Your task to perform on an android device: Search for usb-a on ebay, select the first entry, and add it to the cart. Image 0: 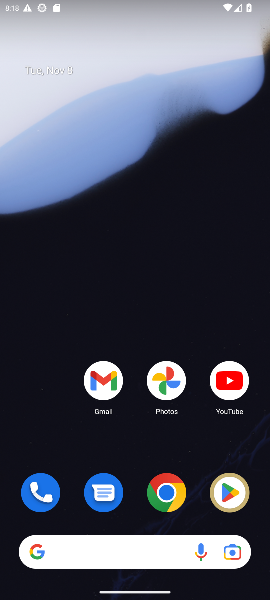
Step 0: click (163, 491)
Your task to perform on an android device: Search for usb-a on ebay, select the first entry, and add it to the cart. Image 1: 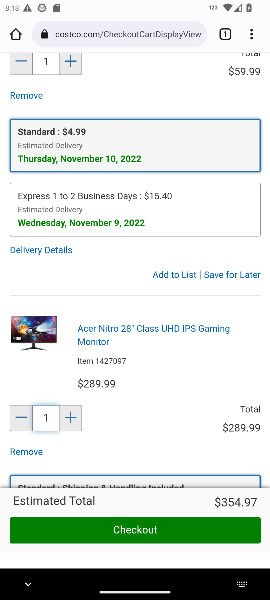
Step 1: click (130, 36)
Your task to perform on an android device: Search for usb-a on ebay, select the first entry, and add it to the cart. Image 2: 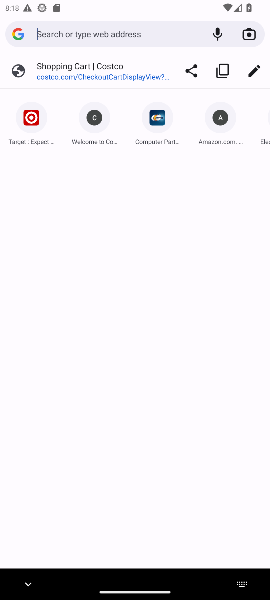
Step 2: type "ebay"
Your task to perform on an android device: Search for usb-a on ebay, select the first entry, and add it to the cart. Image 3: 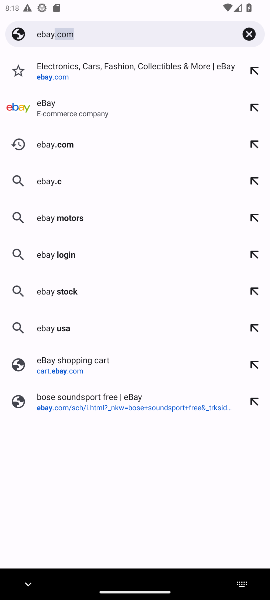
Step 3: press enter
Your task to perform on an android device: Search for usb-a on ebay, select the first entry, and add it to the cart. Image 4: 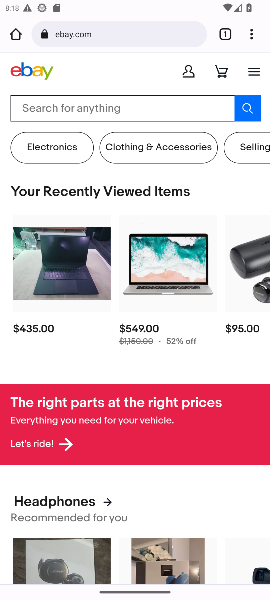
Step 4: click (61, 108)
Your task to perform on an android device: Search for usb-a on ebay, select the first entry, and add it to the cart. Image 5: 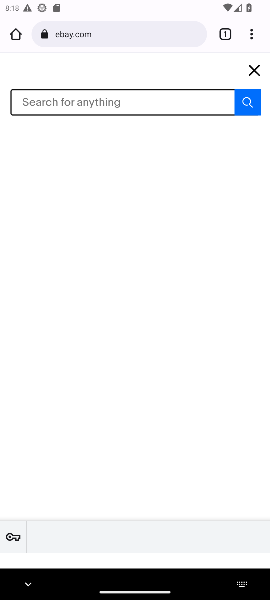
Step 5: type "usb-a on ebay"
Your task to perform on an android device: Search for usb-a on ebay, select the first entry, and add it to the cart. Image 6: 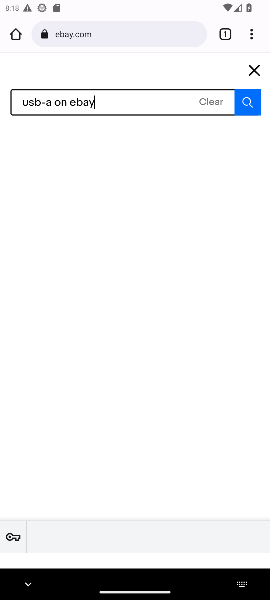
Step 6: press enter
Your task to perform on an android device: Search for usb-a on ebay, select the first entry, and add it to the cart. Image 7: 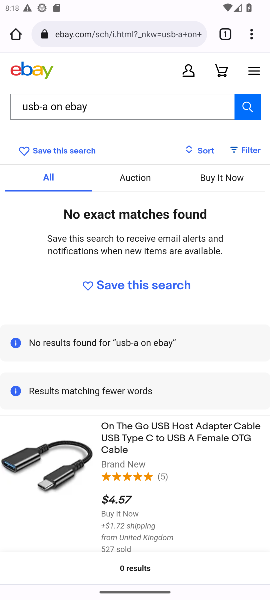
Step 7: drag from (175, 487) to (216, 216)
Your task to perform on an android device: Search for usb-a on ebay, select the first entry, and add it to the cart. Image 8: 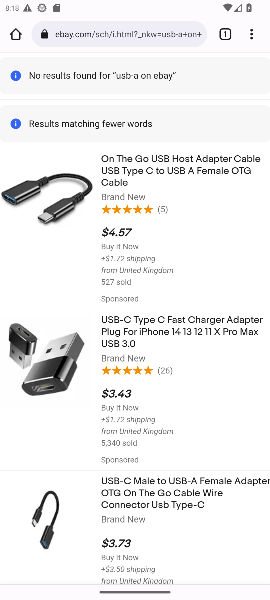
Step 8: click (71, 221)
Your task to perform on an android device: Search for usb-a on ebay, select the first entry, and add it to the cart. Image 9: 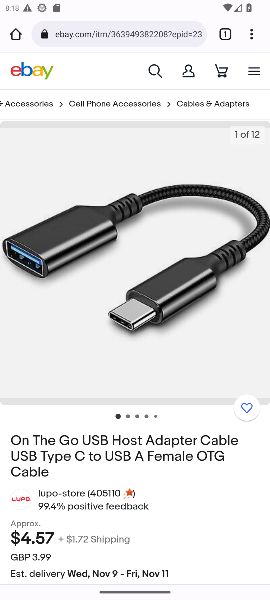
Step 9: drag from (158, 488) to (207, 145)
Your task to perform on an android device: Search for usb-a on ebay, select the first entry, and add it to the cart. Image 10: 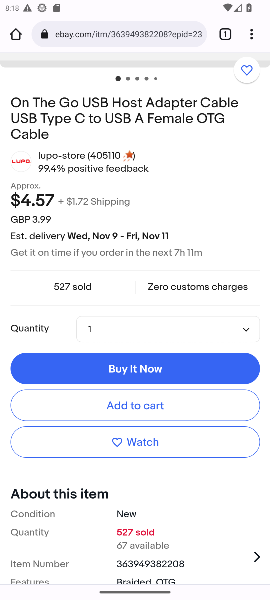
Step 10: click (163, 404)
Your task to perform on an android device: Search for usb-a on ebay, select the first entry, and add it to the cart. Image 11: 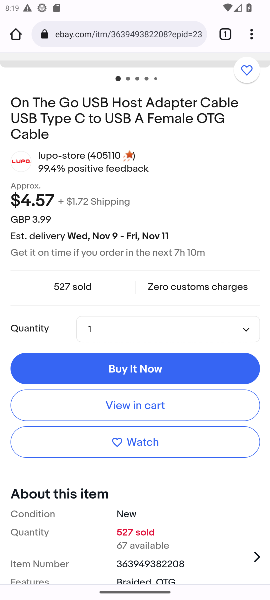
Step 11: click (151, 409)
Your task to perform on an android device: Search for usb-a on ebay, select the first entry, and add it to the cart. Image 12: 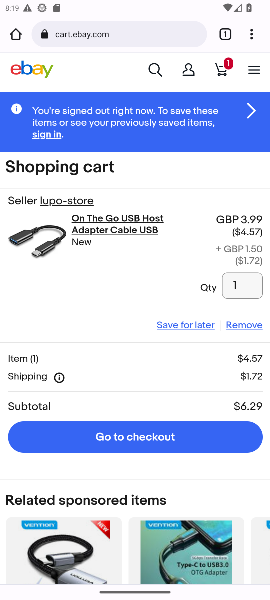
Step 12: task complete